Your task to perform on an android device: When is my next appointment? Image 0: 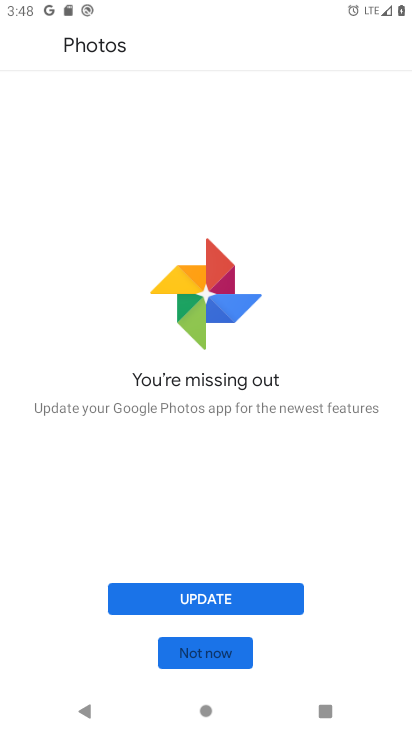
Step 0: press home button
Your task to perform on an android device: When is my next appointment? Image 1: 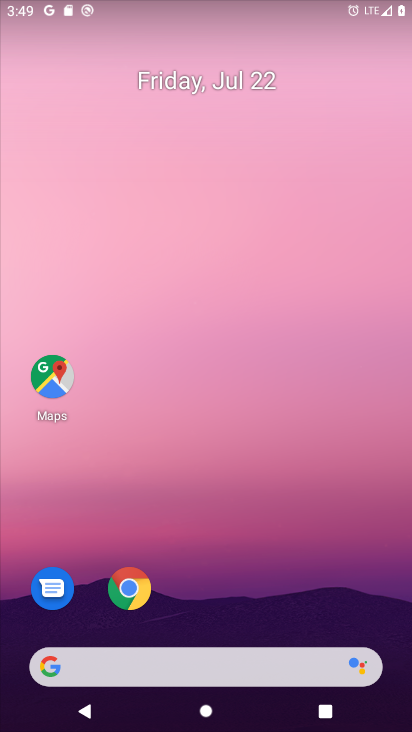
Step 1: drag from (241, 589) to (232, 37)
Your task to perform on an android device: When is my next appointment? Image 2: 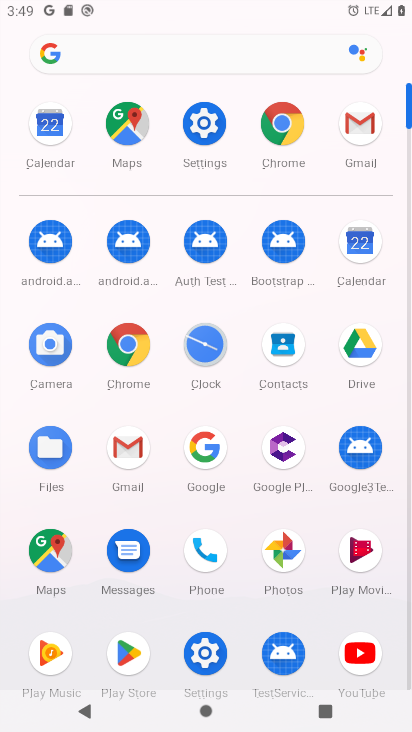
Step 2: click (362, 227)
Your task to perform on an android device: When is my next appointment? Image 3: 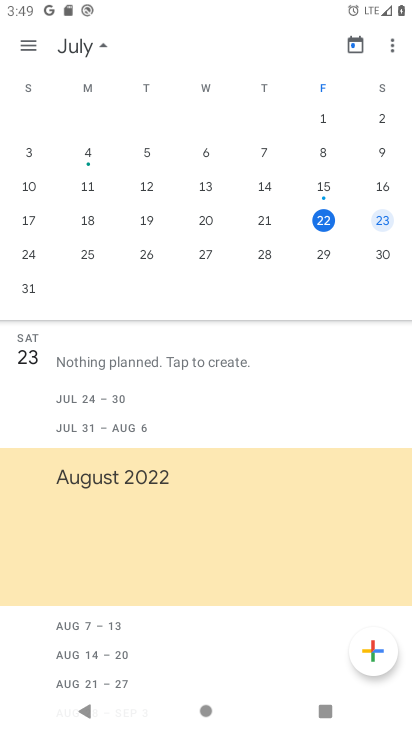
Step 3: click (332, 214)
Your task to perform on an android device: When is my next appointment? Image 4: 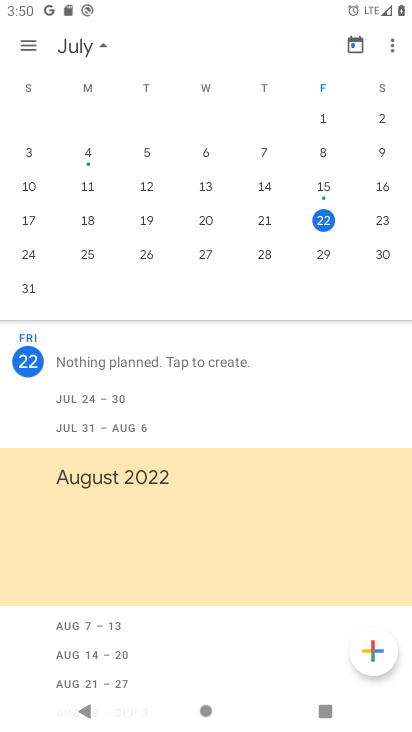
Step 4: task complete